Your task to perform on an android device: turn on notifications settings in the gmail app Image 0: 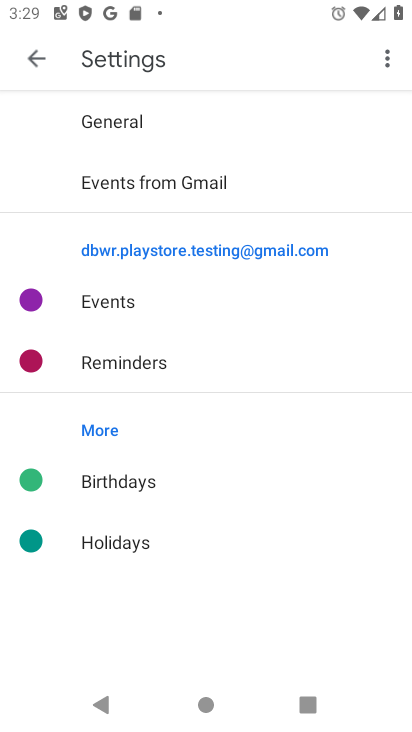
Step 0: press home button
Your task to perform on an android device: turn on notifications settings in the gmail app Image 1: 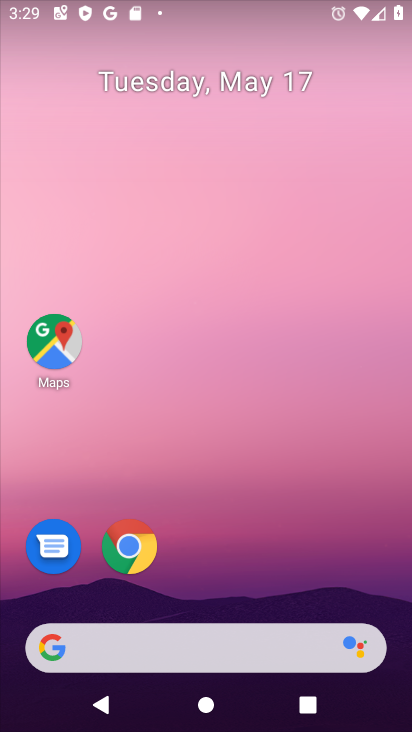
Step 1: drag from (397, 559) to (369, 367)
Your task to perform on an android device: turn on notifications settings in the gmail app Image 2: 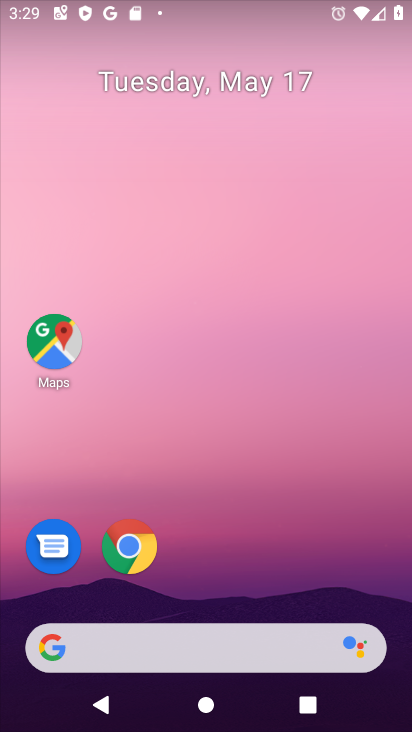
Step 2: drag from (389, 669) to (360, 290)
Your task to perform on an android device: turn on notifications settings in the gmail app Image 3: 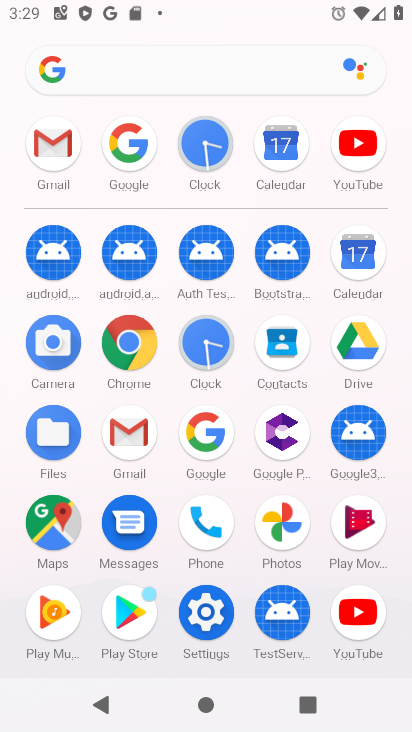
Step 3: click (48, 144)
Your task to perform on an android device: turn on notifications settings in the gmail app Image 4: 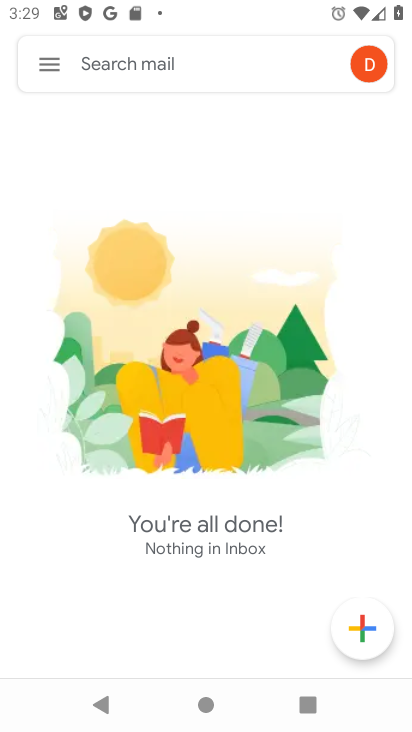
Step 4: click (47, 55)
Your task to perform on an android device: turn on notifications settings in the gmail app Image 5: 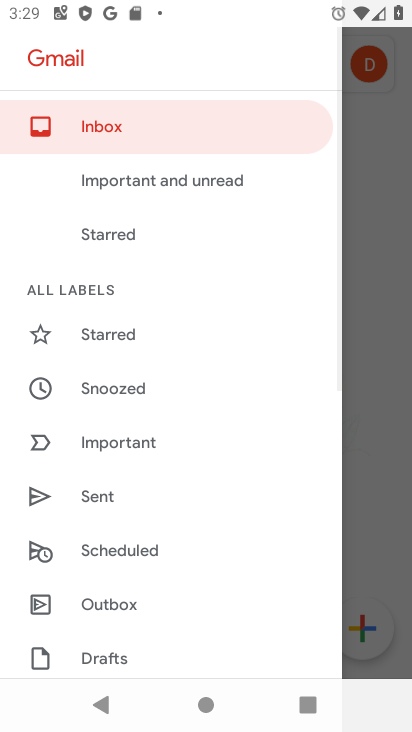
Step 5: drag from (246, 636) to (210, 292)
Your task to perform on an android device: turn on notifications settings in the gmail app Image 6: 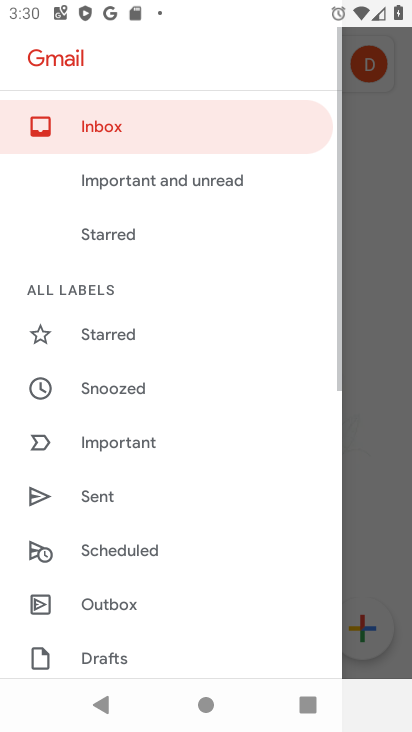
Step 6: drag from (267, 629) to (248, 343)
Your task to perform on an android device: turn on notifications settings in the gmail app Image 7: 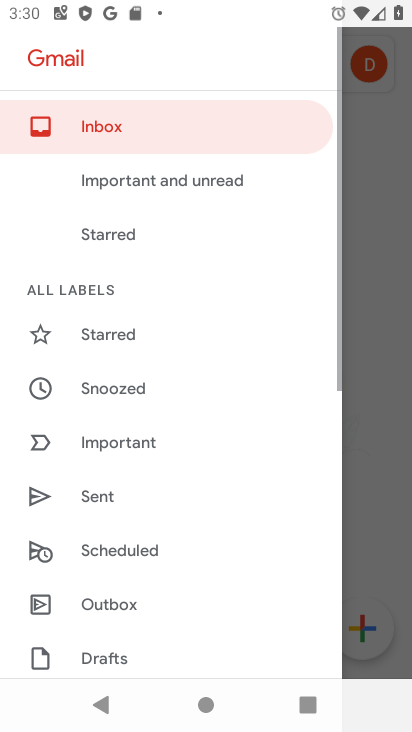
Step 7: drag from (225, 644) to (212, 408)
Your task to perform on an android device: turn on notifications settings in the gmail app Image 8: 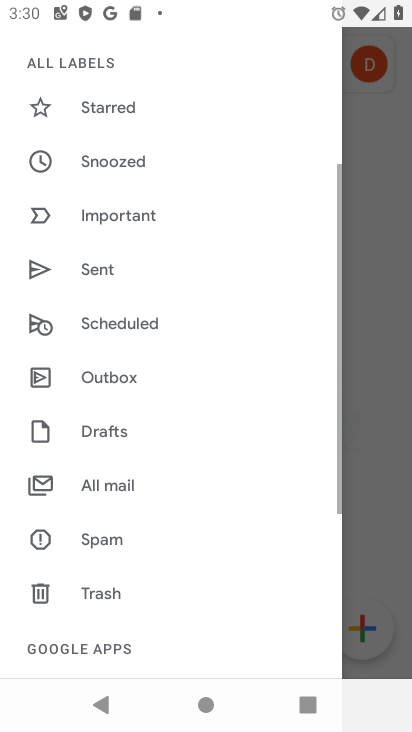
Step 8: drag from (211, 633) to (174, 313)
Your task to perform on an android device: turn on notifications settings in the gmail app Image 9: 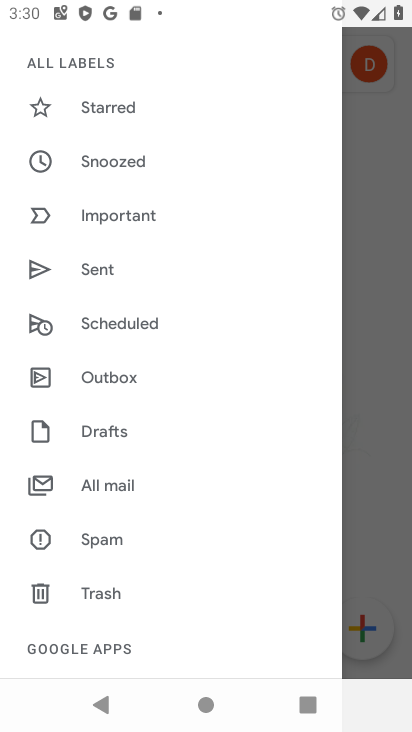
Step 9: drag from (229, 618) to (227, 352)
Your task to perform on an android device: turn on notifications settings in the gmail app Image 10: 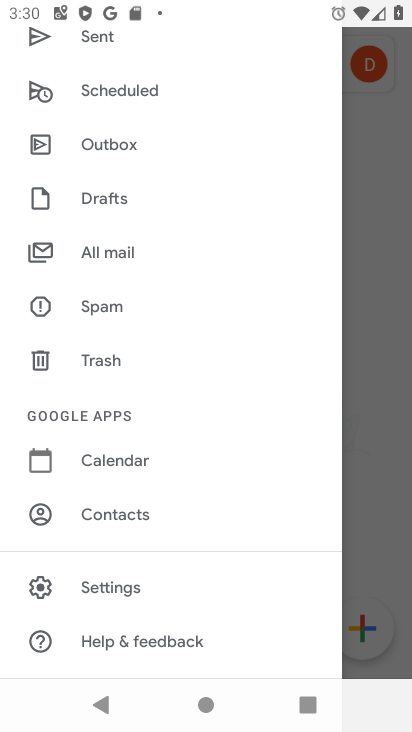
Step 10: click (92, 587)
Your task to perform on an android device: turn on notifications settings in the gmail app Image 11: 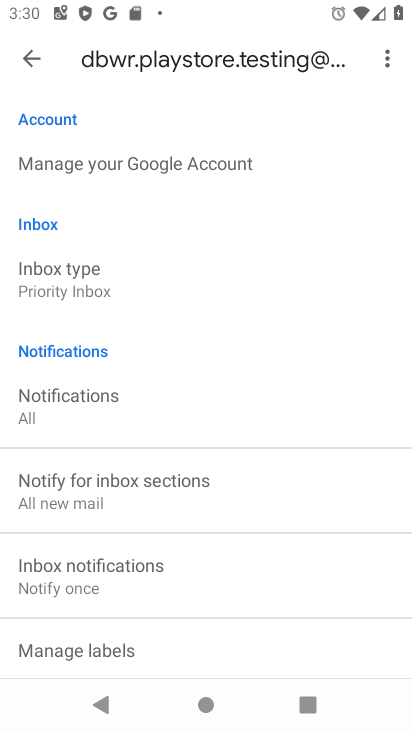
Step 11: click (25, 57)
Your task to perform on an android device: turn on notifications settings in the gmail app Image 12: 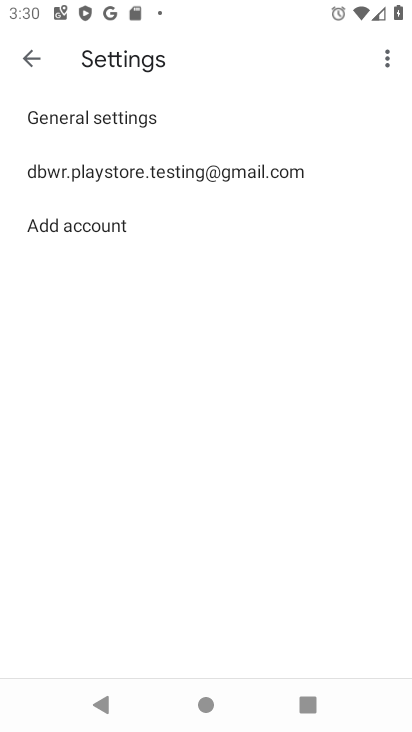
Step 12: click (65, 123)
Your task to perform on an android device: turn on notifications settings in the gmail app Image 13: 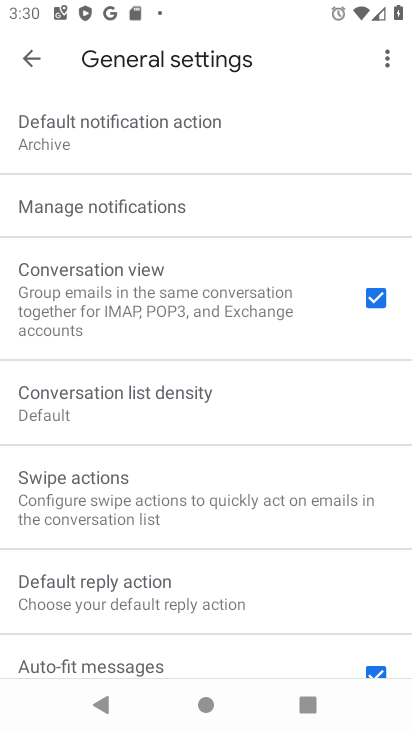
Step 13: click (83, 213)
Your task to perform on an android device: turn on notifications settings in the gmail app Image 14: 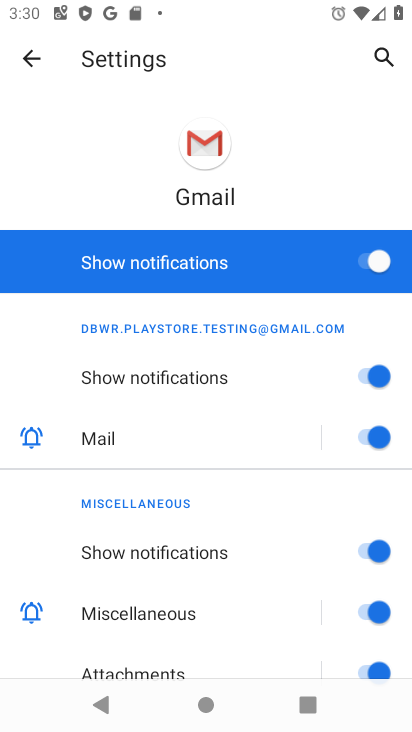
Step 14: task complete